Your task to perform on an android device: What is the recent news? Image 0: 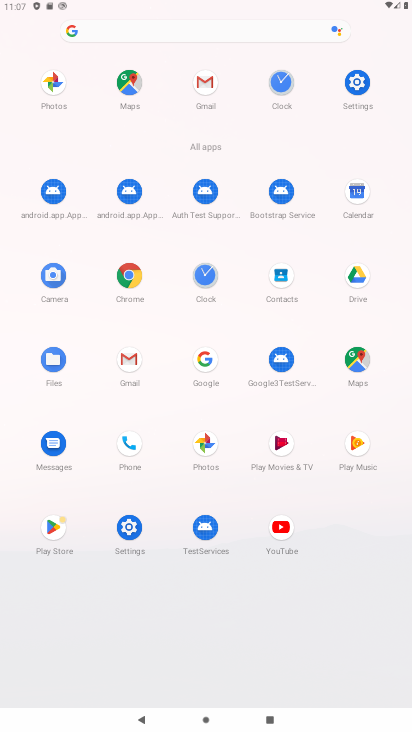
Step 0: click (133, 273)
Your task to perform on an android device: What is the recent news? Image 1: 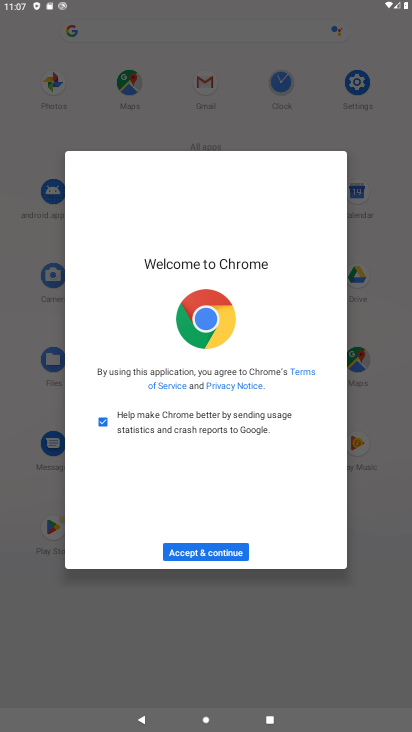
Step 1: click (208, 541)
Your task to perform on an android device: What is the recent news? Image 2: 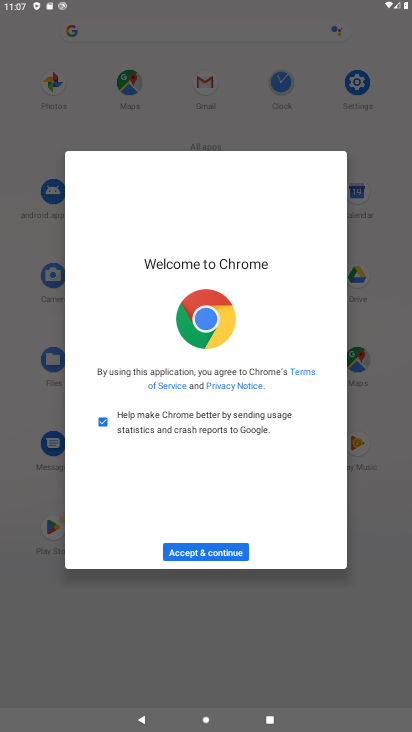
Step 2: click (189, 554)
Your task to perform on an android device: What is the recent news? Image 3: 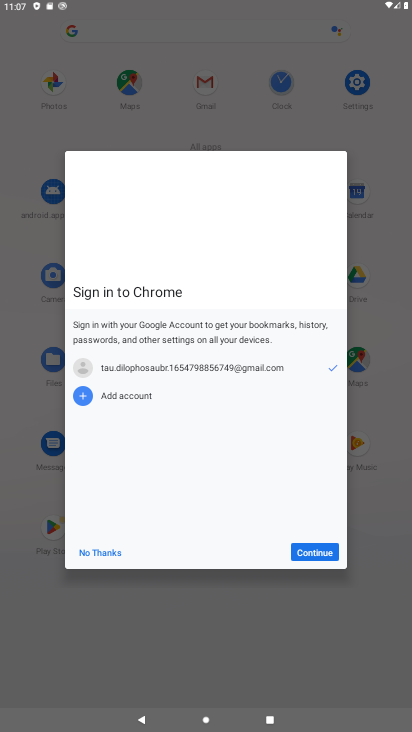
Step 3: click (307, 549)
Your task to perform on an android device: What is the recent news? Image 4: 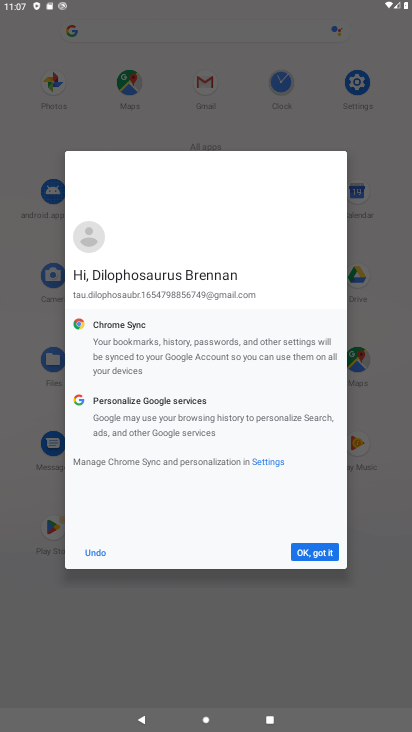
Step 4: click (307, 549)
Your task to perform on an android device: What is the recent news? Image 5: 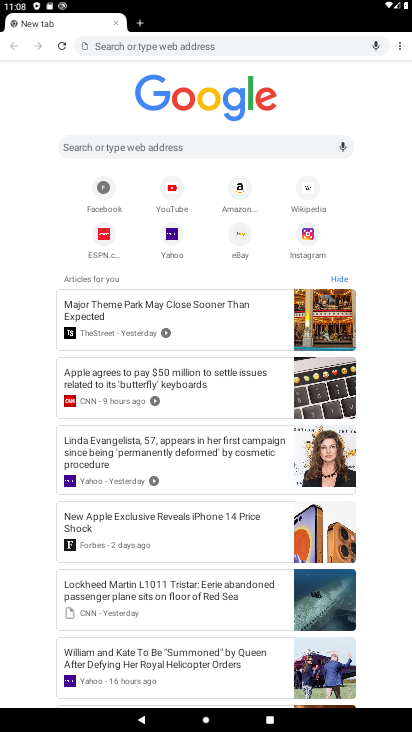
Step 5: click (163, 147)
Your task to perform on an android device: What is the recent news? Image 6: 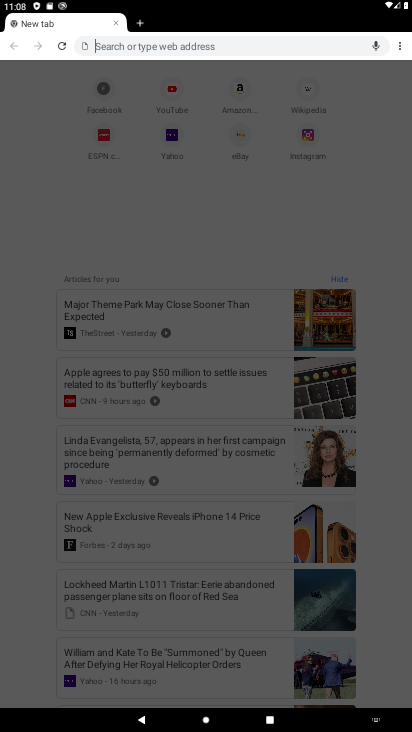
Step 6: type "recetn news"
Your task to perform on an android device: What is the recent news? Image 7: 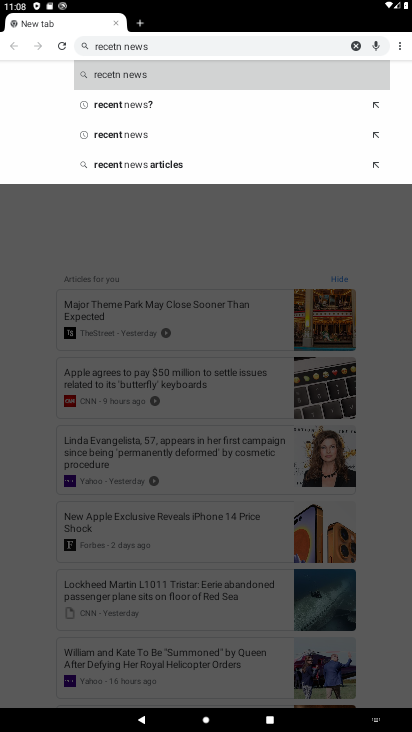
Step 7: click (150, 82)
Your task to perform on an android device: What is the recent news? Image 8: 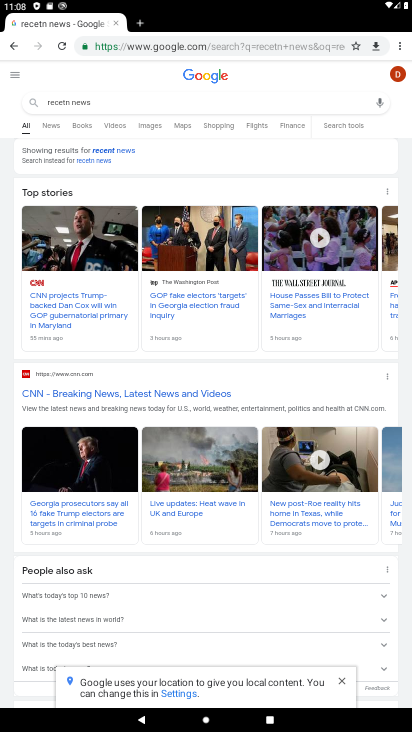
Step 8: task complete